Your task to perform on an android device: Open Google Chrome Image 0: 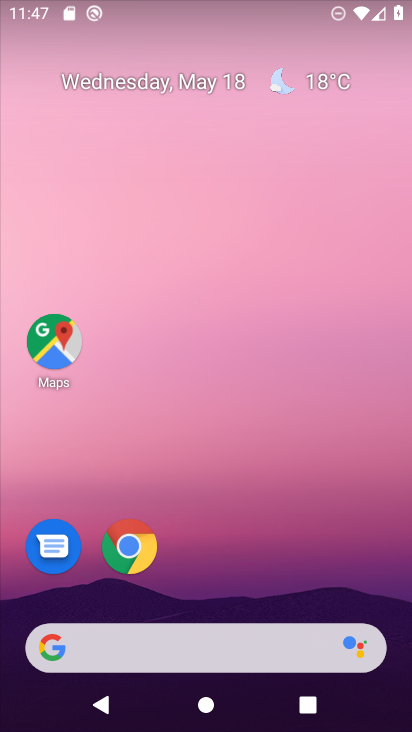
Step 0: click (131, 547)
Your task to perform on an android device: Open Google Chrome Image 1: 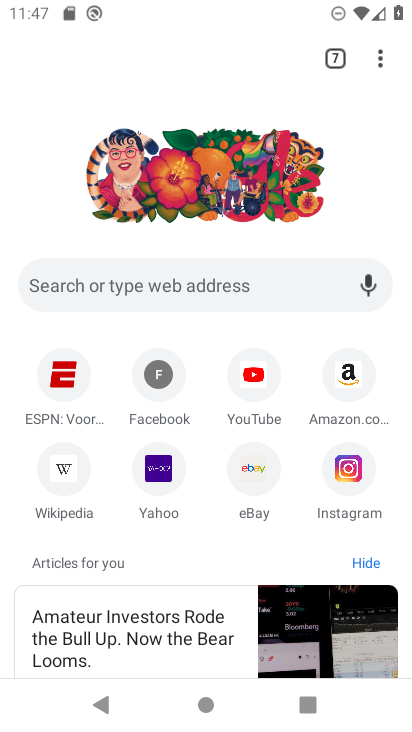
Step 1: task complete